Your task to perform on an android device: Go to sound settings Image 0: 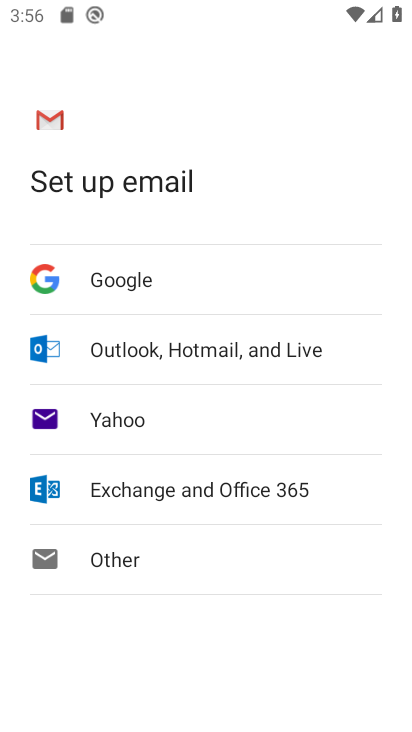
Step 0: press back button
Your task to perform on an android device: Go to sound settings Image 1: 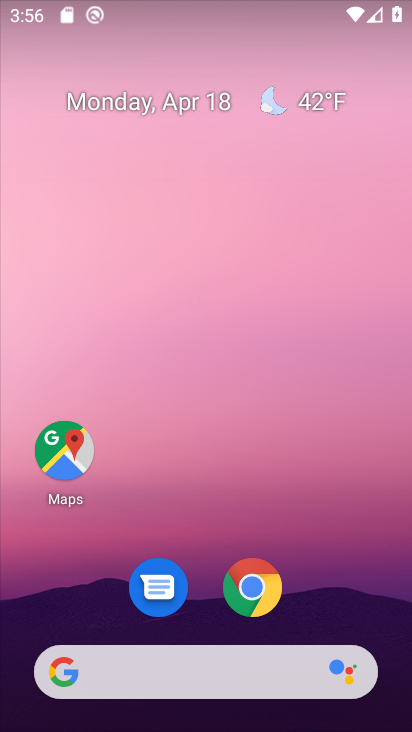
Step 1: drag from (166, 616) to (281, 103)
Your task to perform on an android device: Go to sound settings Image 2: 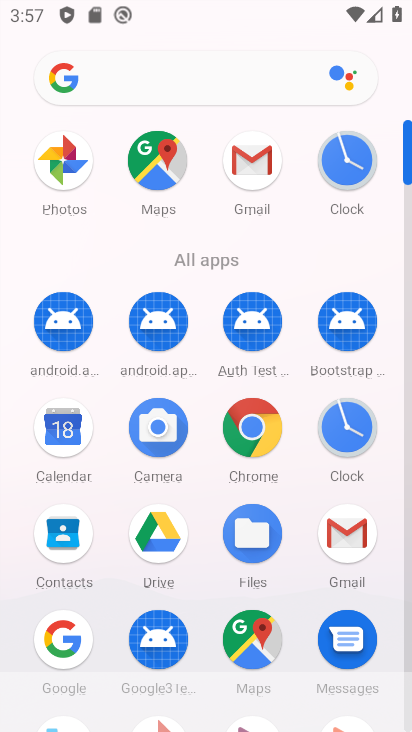
Step 2: drag from (365, 608) to (407, 335)
Your task to perform on an android device: Go to sound settings Image 3: 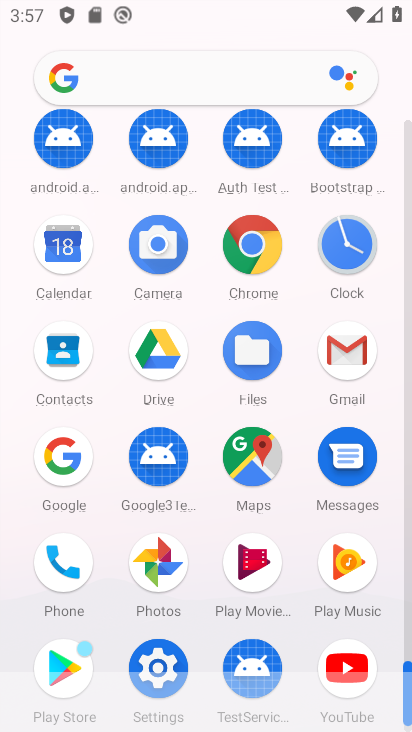
Step 3: click (160, 657)
Your task to perform on an android device: Go to sound settings Image 4: 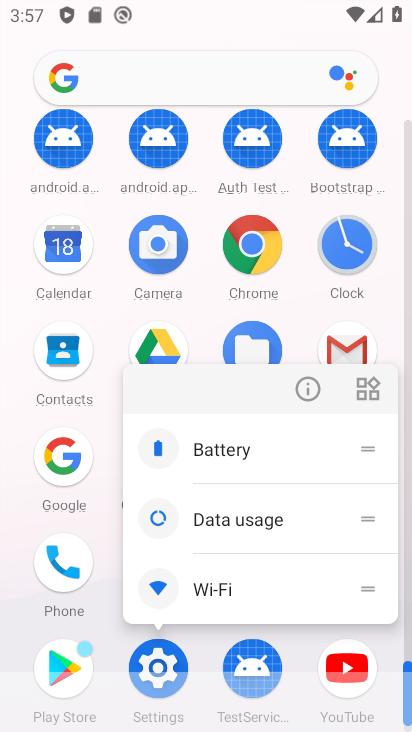
Step 4: click (144, 683)
Your task to perform on an android device: Go to sound settings Image 5: 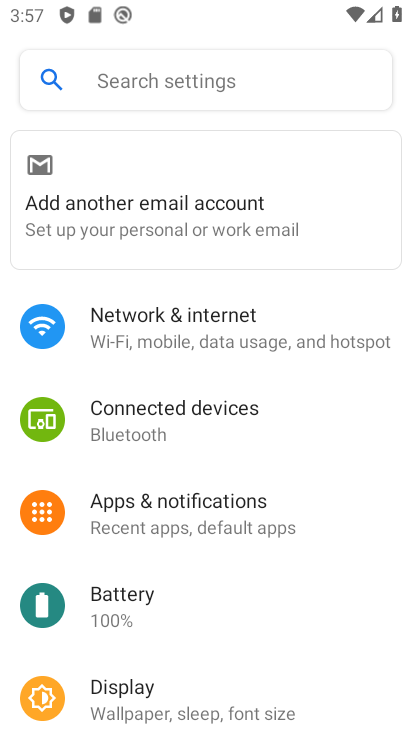
Step 5: drag from (229, 551) to (297, 242)
Your task to perform on an android device: Go to sound settings Image 6: 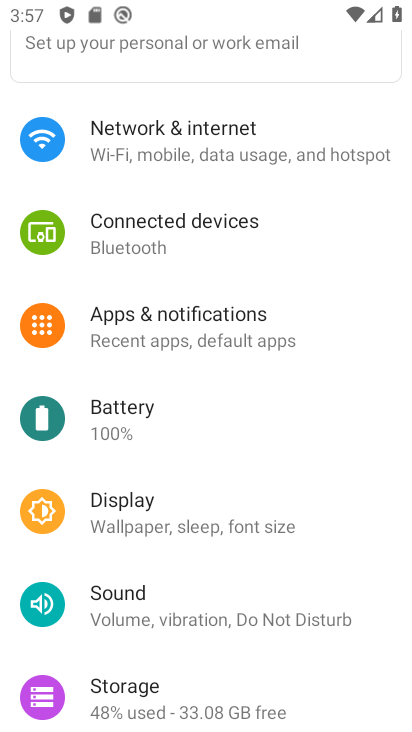
Step 6: click (112, 606)
Your task to perform on an android device: Go to sound settings Image 7: 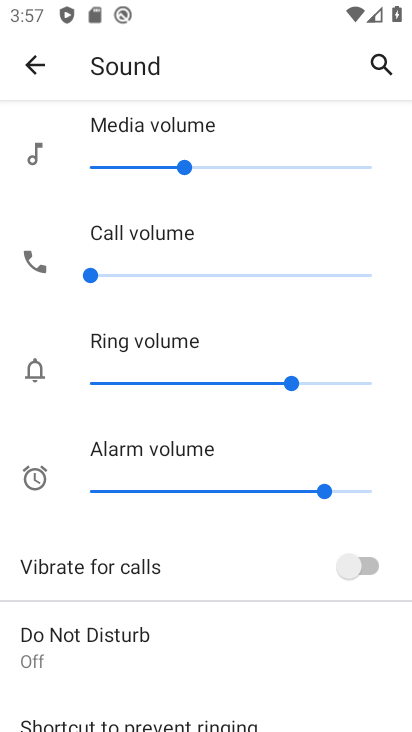
Step 7: task complete